Your task to perform on an android device: Open Google Maps Image 0: 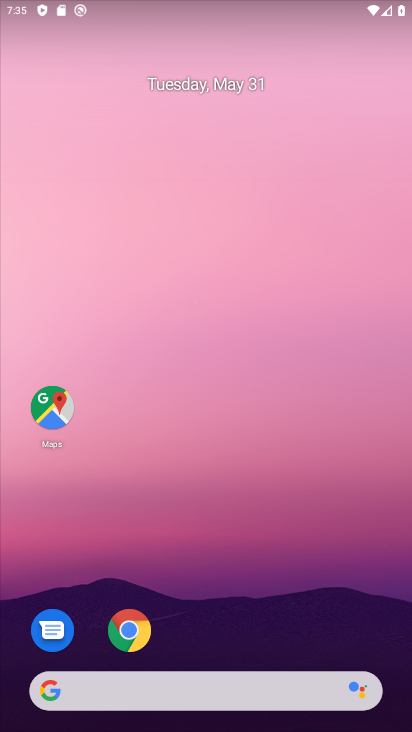
Step 0: click (50, 392)
Your task to perform on an android device: Open Google Maps Image 1: 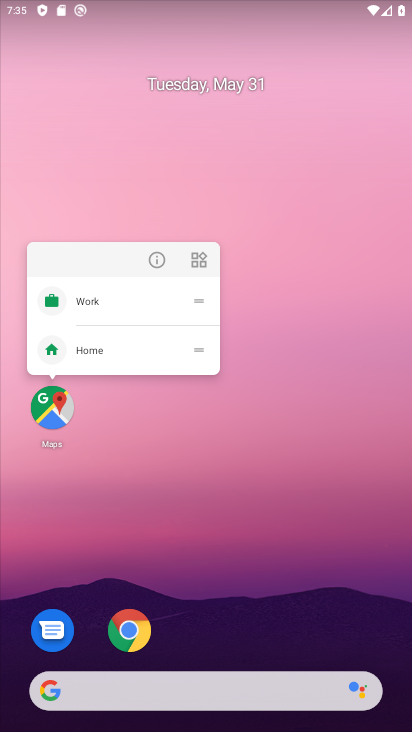
Step 1: click (49, 404)
Your task to perform on an android device: Open Google Maps Image 2: 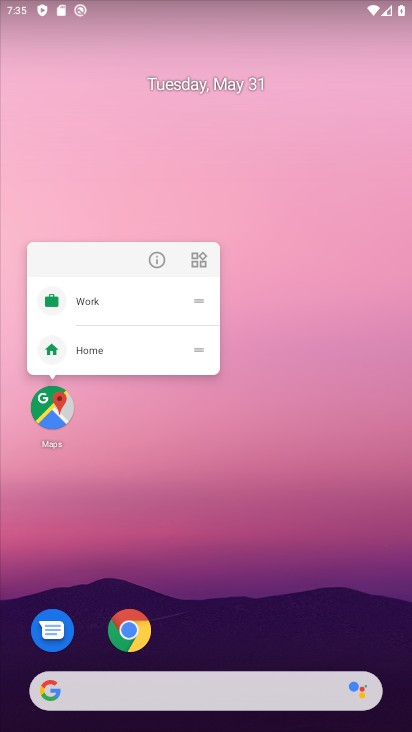
Step 2: click (45, 402)
Your task to perform on an android device: Open Google Maps Image 3: 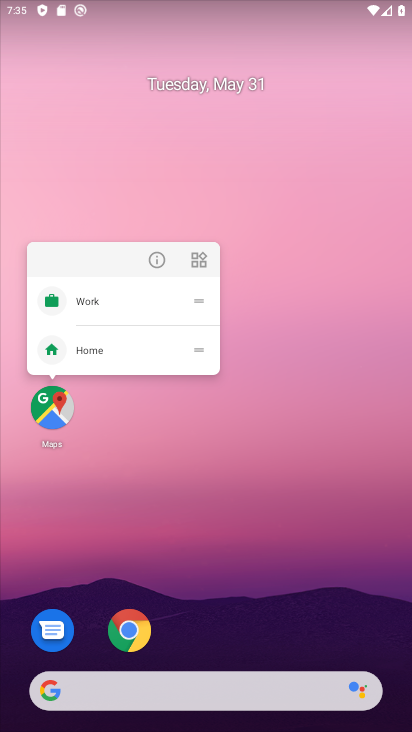
Step 3: click (46, 403)
Your task to perform on an android device: Open Google Maps Image 4: 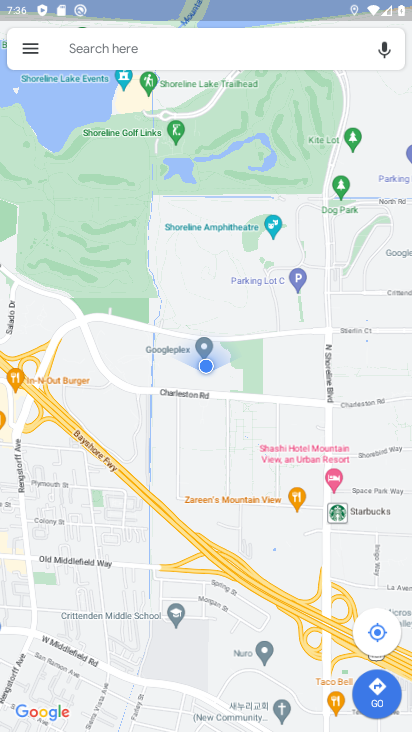
Step 4: task complete